Your task to perform on an android device: turn on the 24-hour format for clock Image 0: 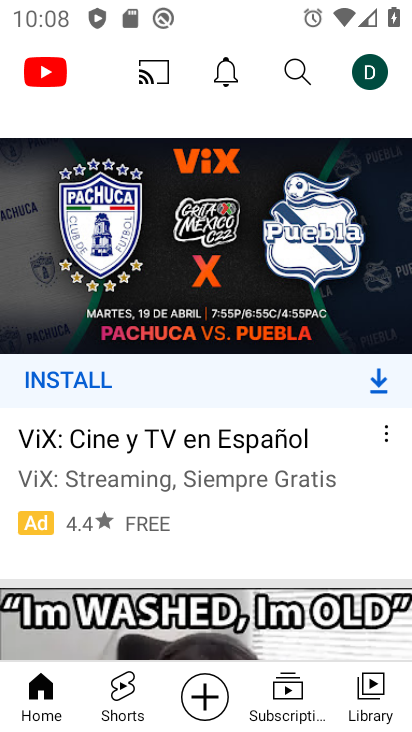
Step 0: press home button
Your task to perform on an android device: turn on the 24-hour format for clock Image 1: 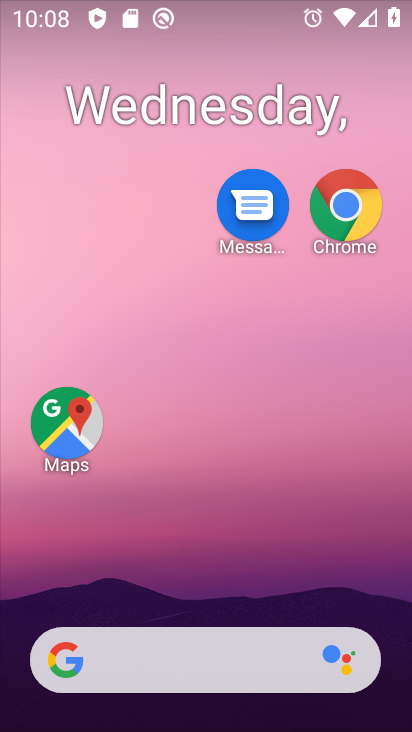
Step 1: drag from (211, 600) to (286, 73)
Your task to perform on an android device: turn on the 24-hour format for clock Image 2: 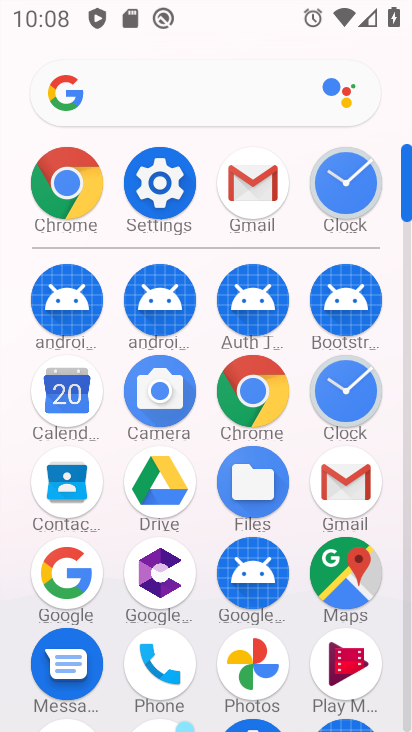
Step 2: click (330, 397)
Your task to perform on an android device: turn on the 24-hour format for clock Image 3: 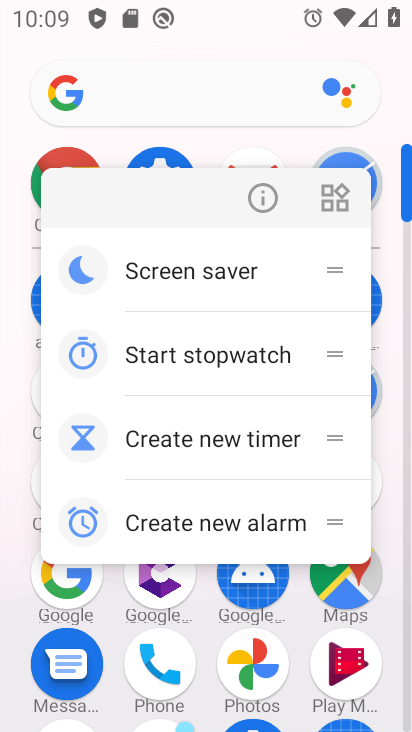
Step 3: click (262, 196)
Your task to perform on an android device: turn on the 24-hour format for clock Image 4: 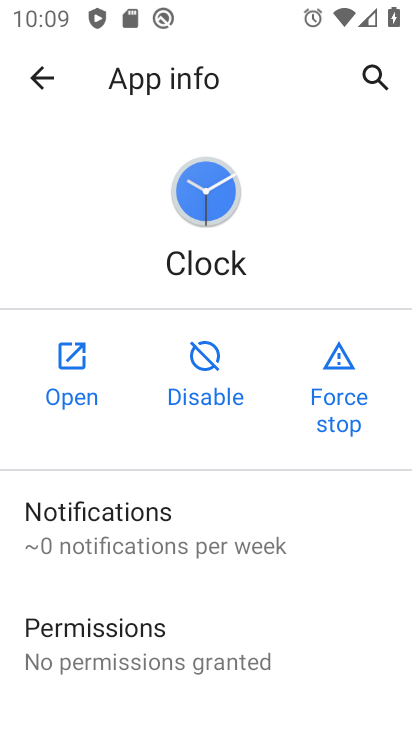
Step 4: click (82, 374)
Your task to perform on an android device: turn on the 24-hour format for clock Image 5: 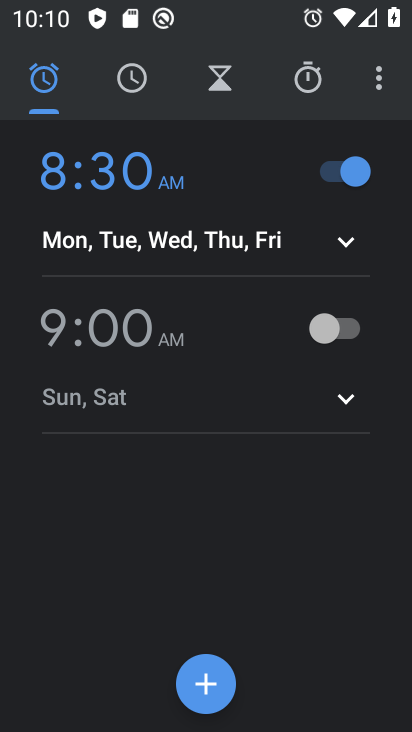
Step 5: drag from (342, 307) to (384, 98)
Your task to perform on an android device: turn on the 24-hour format for clock Image 6: 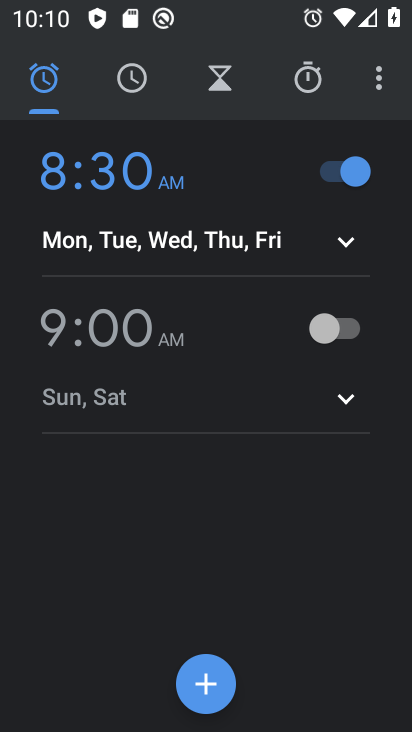
Step 6: click (374, 81)
Your task to perform on an android device: turn on the 24-hour format for clock Image 7: 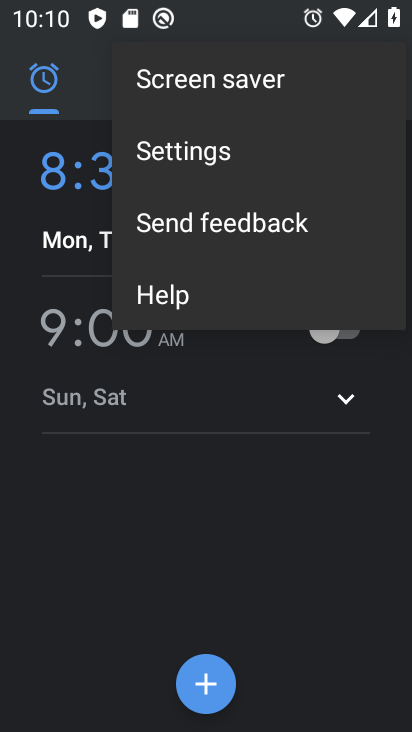
Step 7: click (231, 147)
Your task to perform on an android device: turn on the 24-hour format for clock Image 8: 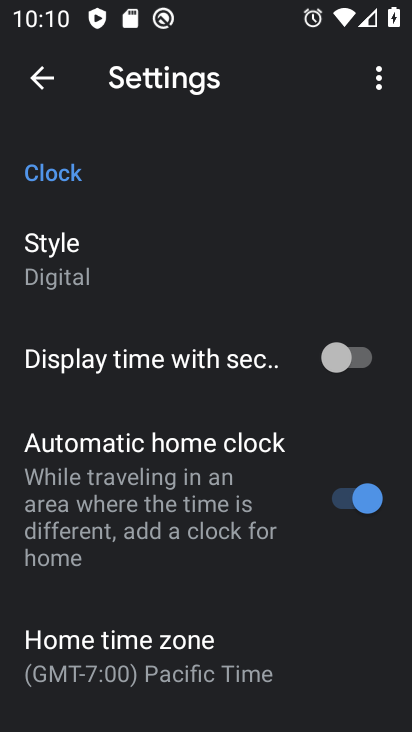
Step 8: drag from (188, 611) to (323, 78)
Your task to perform on an android device: turn on the 24-hour format for clock Image 9: 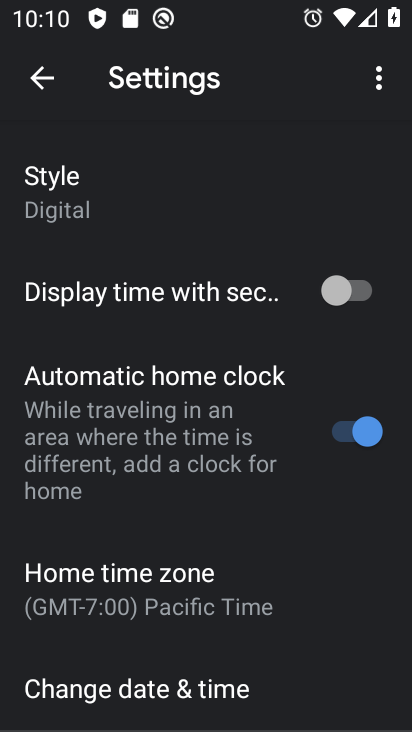
Step 9: click (180, 688)
Your task to perform on an android device: turn on the 24-hour format for clock Image 10: 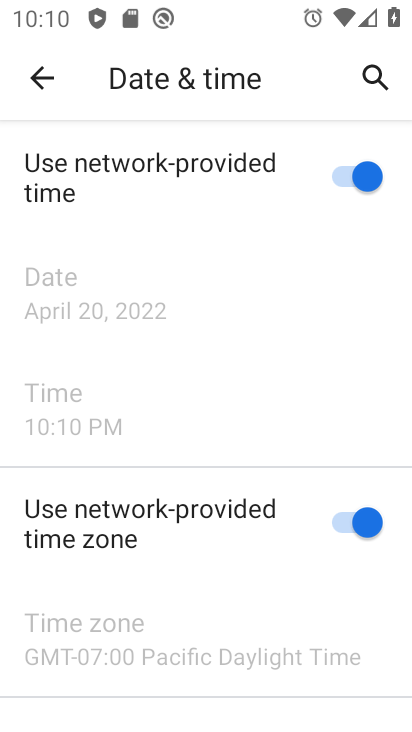
Step 10: drag from (233, 587) to (327, 175)
Your task to perform on an android device: turn on the 24-hour format for clock Image 11: 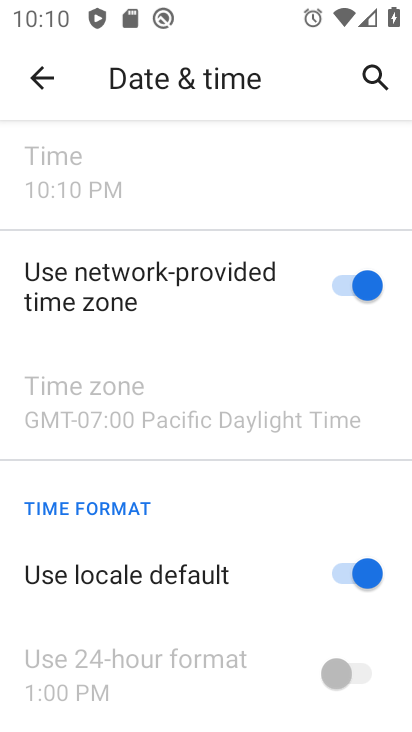
Step 11: drag from (186, 660) to (313, 204)
Your task to perform on an android device: turn on the 24-hour format for clock Image 12: 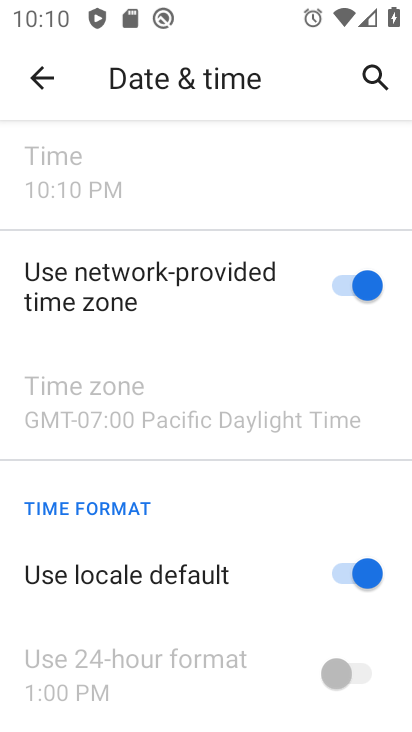
Step 12: click (365, 568)
Your task to perform on an android device: turn on the 24-hour format for clock Image 13: 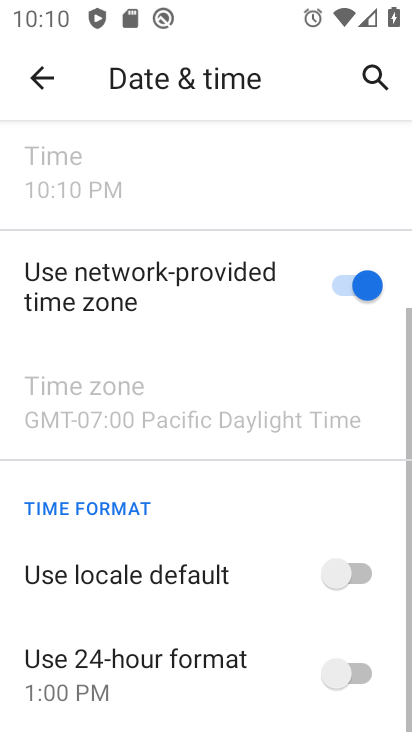
Step 13: click (321, 676)
Your task to perform on an android device: turn on the 24-hour format for clock Image 14: 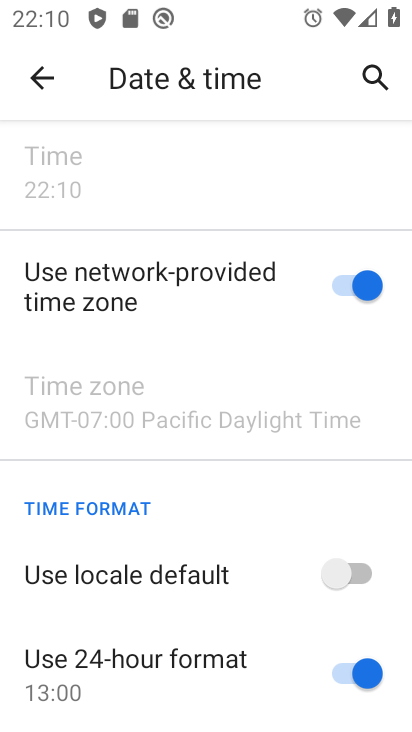
Step 14: task complete